Your task to perform on an android device: delete the emails in spam in the gmail app Image 0: 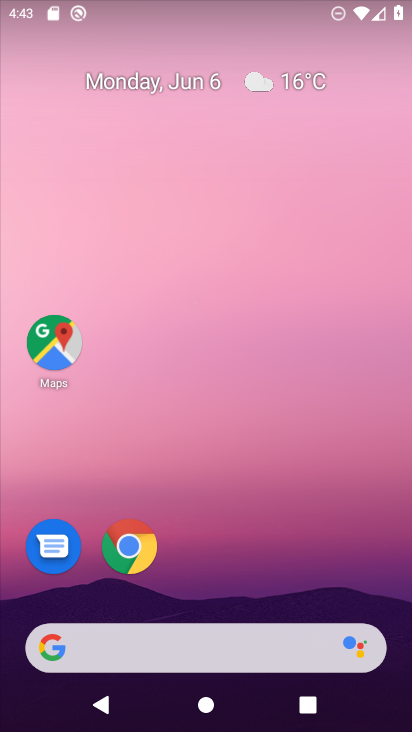
Step 0: drag from (193, 611) to (189, 76)
Your task to perform on an android device: delete the emails in spam in the gmail app Image 1: 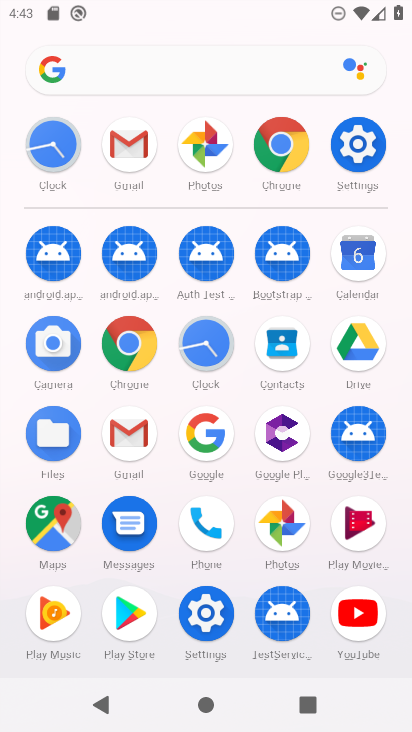
Step 1: click (139, 431)
Your task to perform on an android device: delete the emails in spam in the gmail app Image 2: 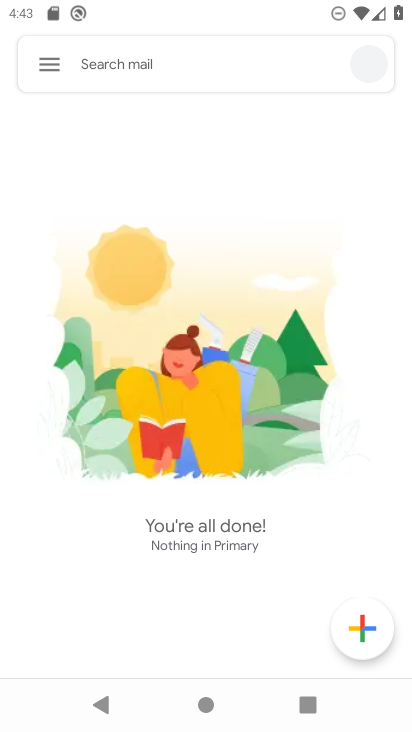
Step 2: click (48, 69)
Your task to perform on an android device: delete the emails in spam in the gmail app Image 3: 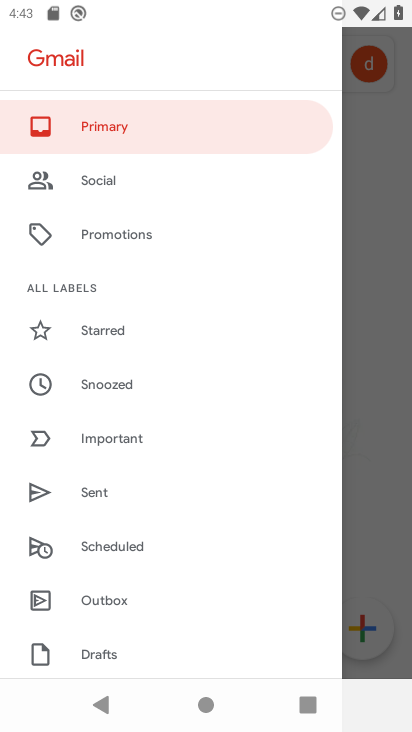
Step 3: drag from (205, 610) to (204, 214)
Your task to perform on an android device: delete the emails in spam in the gmail app Image 4: 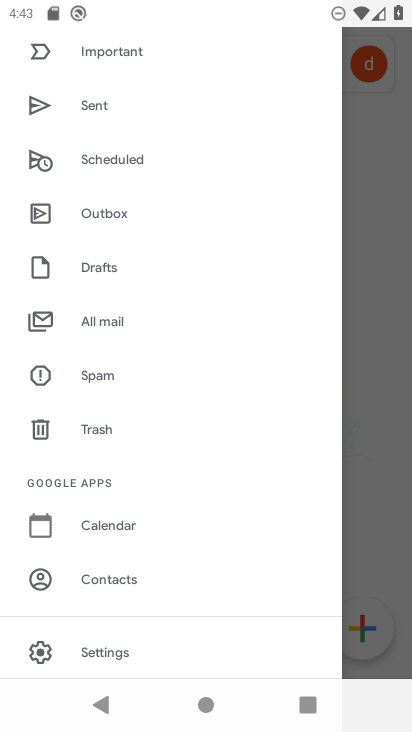
Step 4: click (118, 369)
Your task to perform on an android device: delete the emails in spam in the gmail app Image 5: 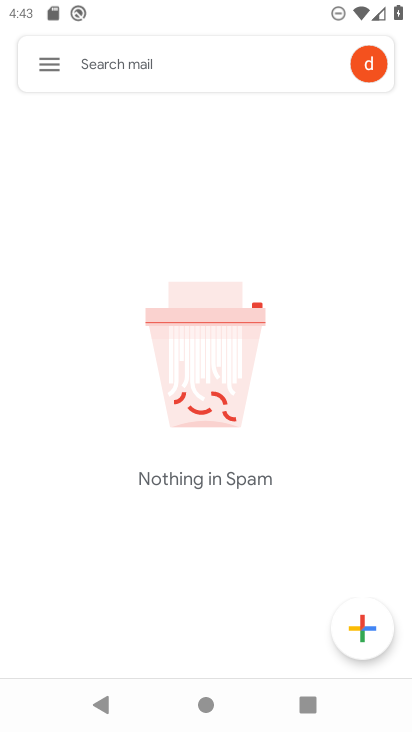
Step 5: task complete